Your task to perform on an android device: Play the latest video from the Washington Post Image 0: 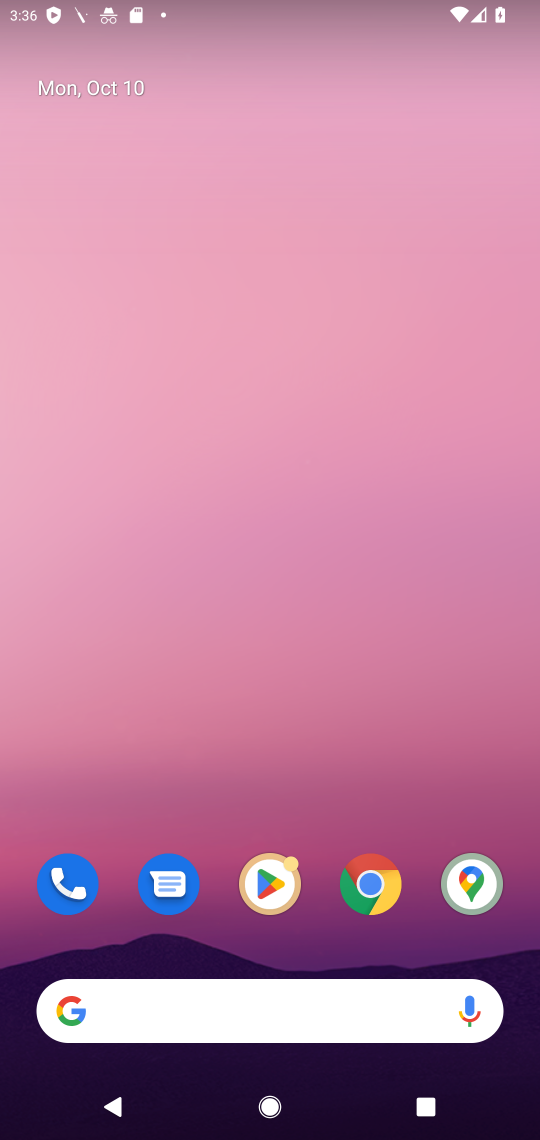
Step 0: click (281, 1013)
Your task to perform on an android device: Play the latest video from the Washington Post Image 1: 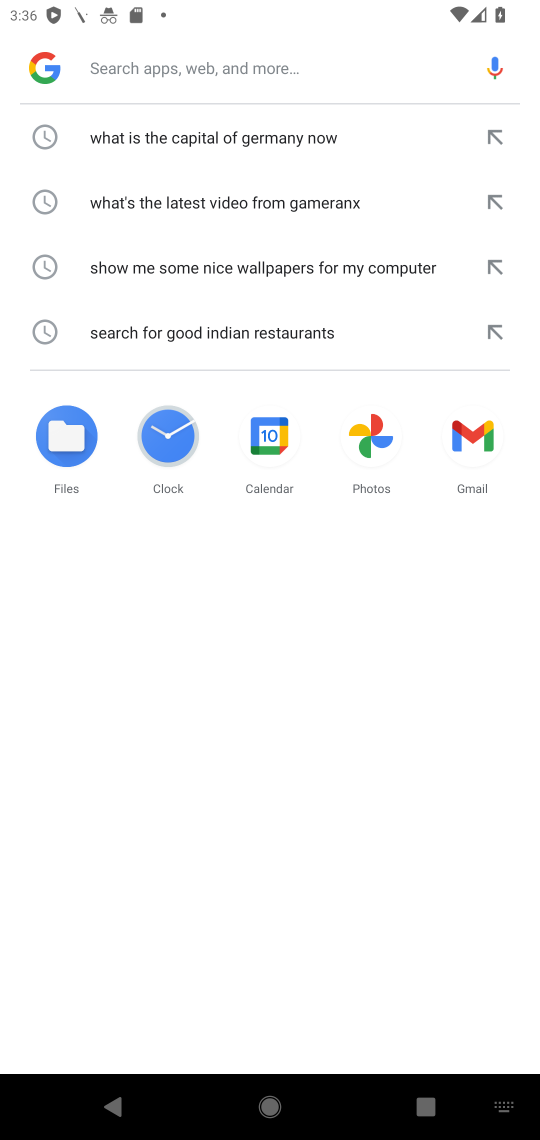
Step 1: type "Play the latest video from the Washington Post"
Your task to perform on an android device: Play the latest video from the Washington Post Image 2: 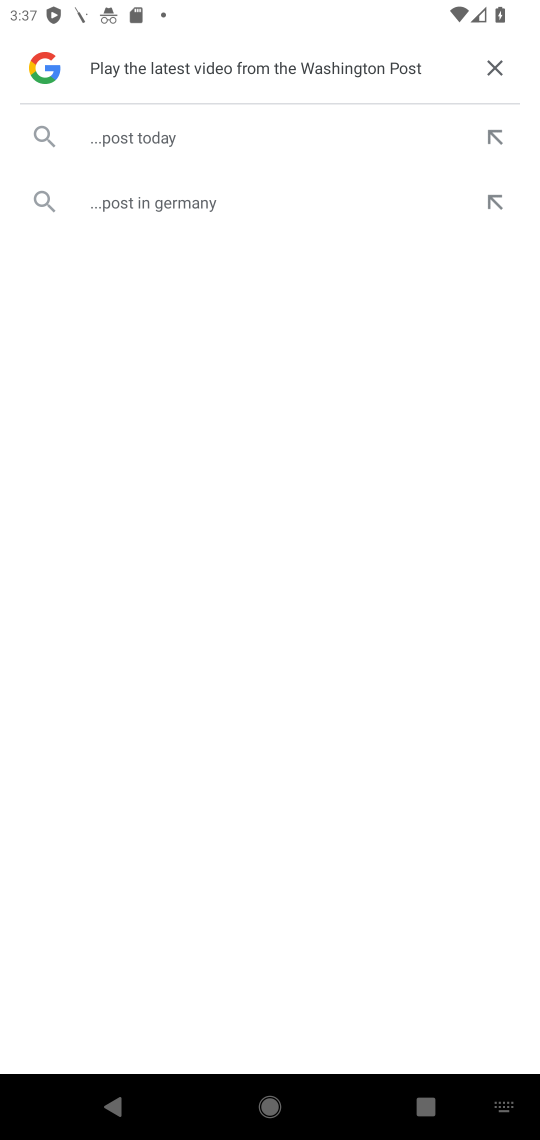
Step 2: click (183, 138)
Your task to perform on an android device: Play the latest video from the Washington Post Image 3: 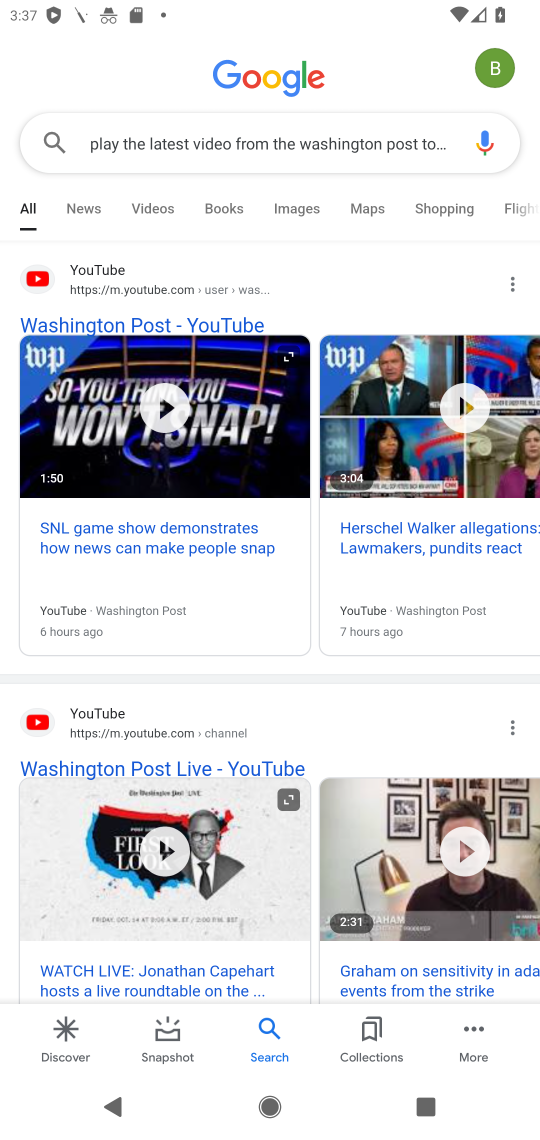
Step 3: drag from (282, 693) to (290, 315)
Your task to perform on an android device: Play the latest video from the Washington Post Image 4: 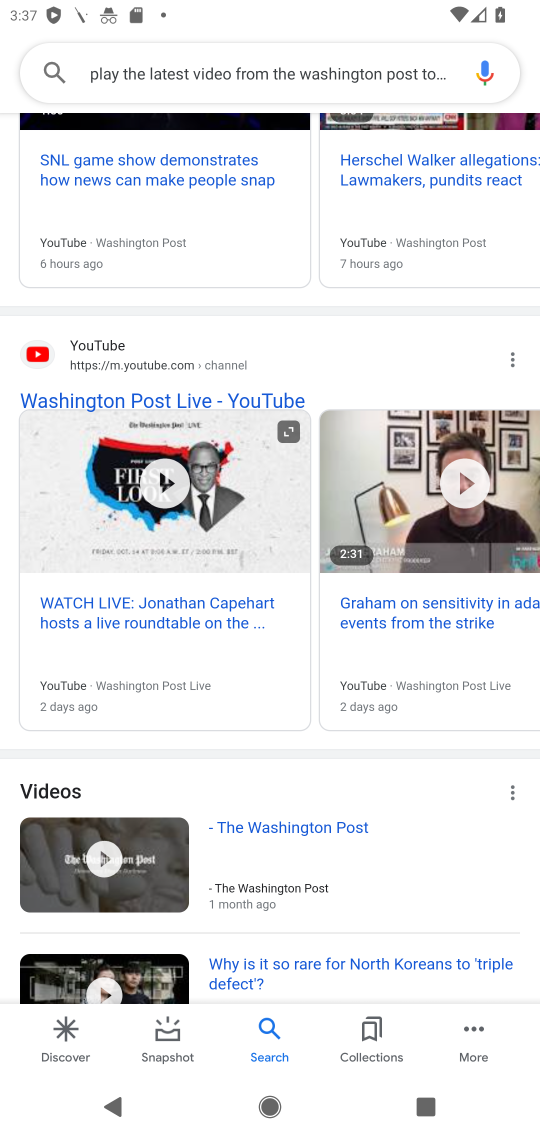
Step 4: drag from (307, 774) to (315, 392)
Your task to perform on an android device: Play the latest video from the Washington Post Image 5: 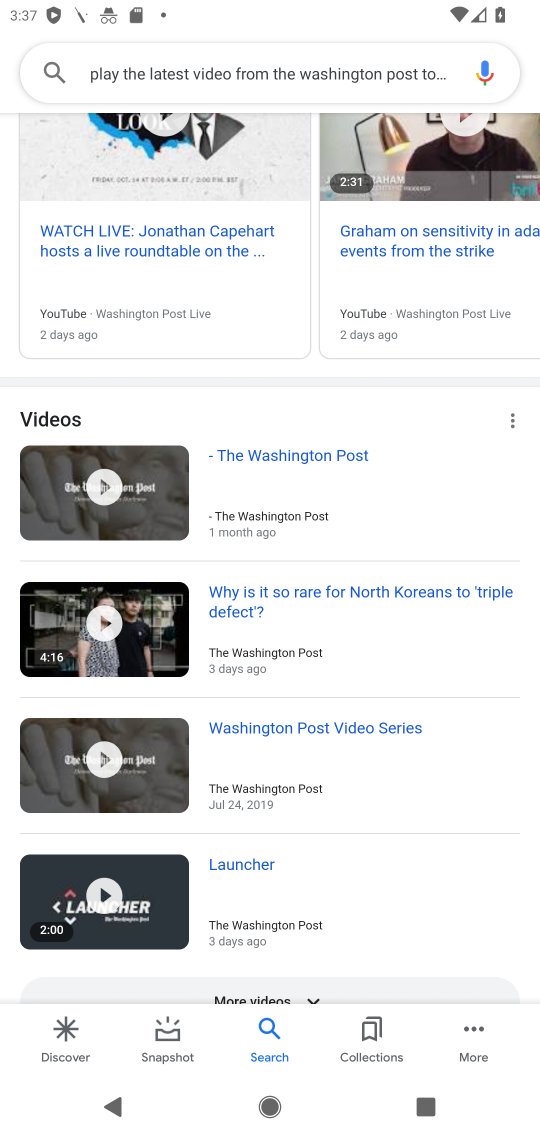
Step 5: drag from (397, 901) to (400, 428)
Your task to perform on an android device: Play the latest video from the Washington Post Image 6: 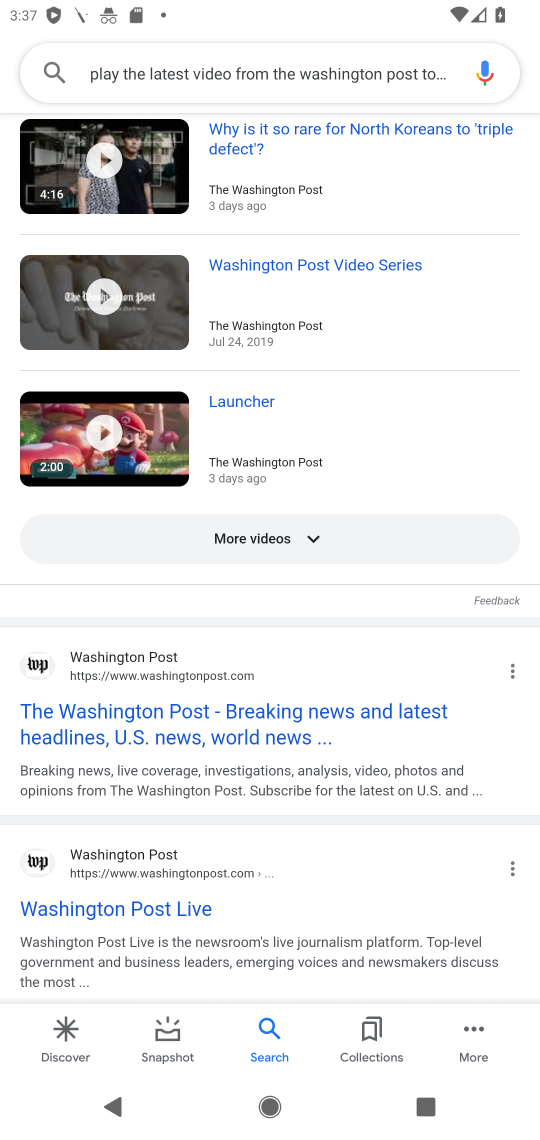
Step 6: click (223, 718)
Your task to perform on an android device: Play the latest video from the Washington Post Image 7: 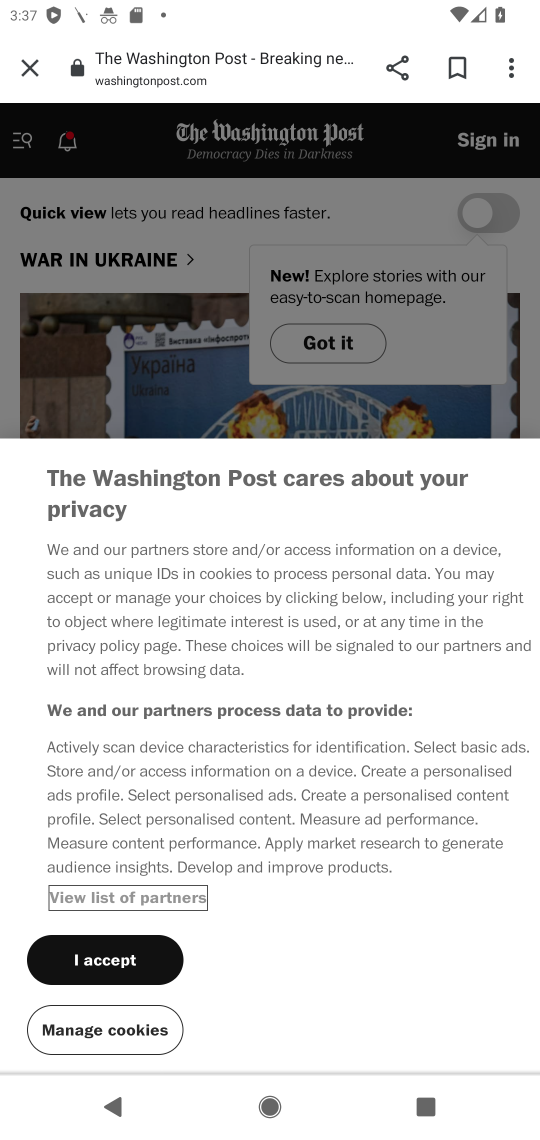
Step 7: click (133, 959)
Your task to perform on an android device: Play the latest video from the Washington Post Image 8: 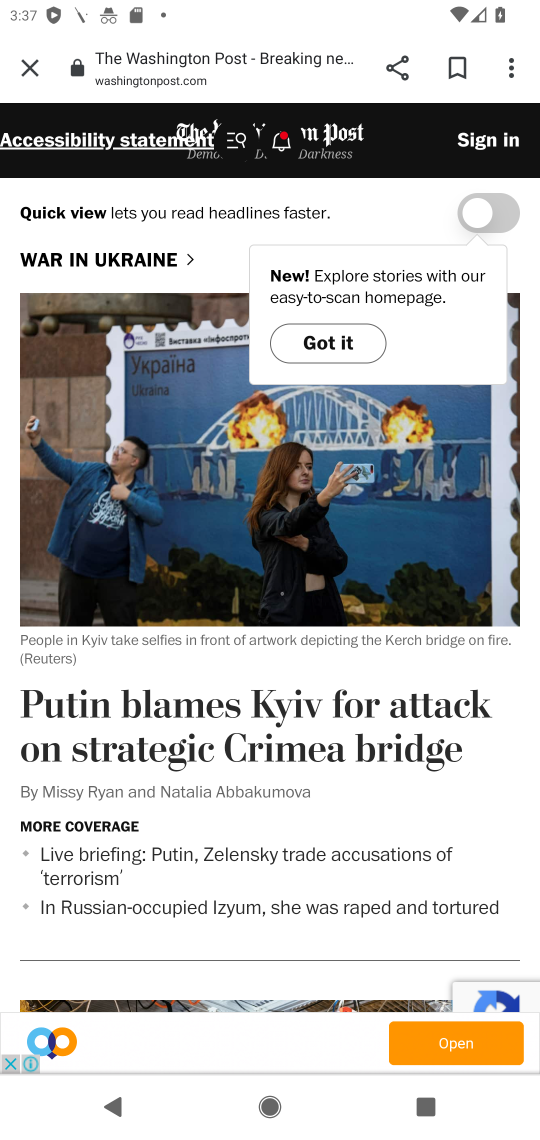
Step 8: task complete